Your task to perform on an android device: toggle airplane mode Image 0: 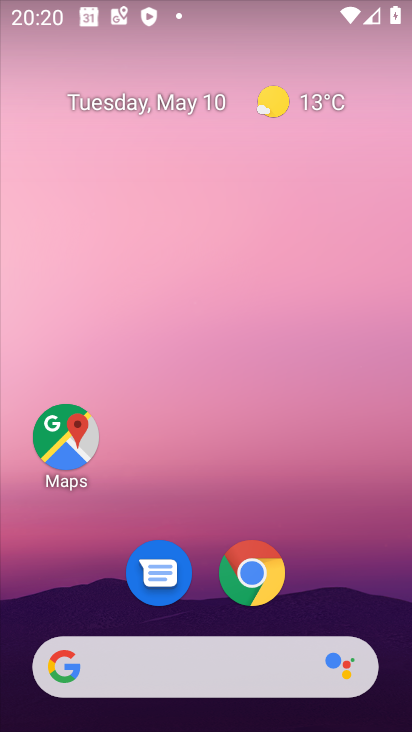
Step 0: drag from (334, 540) to (326, 22)
Your task to perform on an android device: toggle airplane mode Image 1: 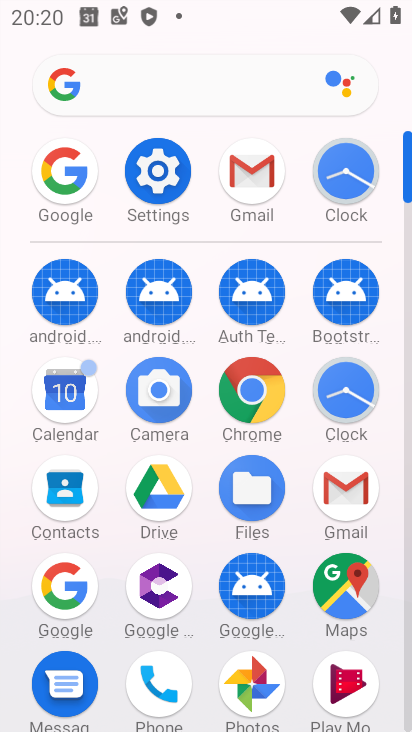
Step 1: click (153, 181)
Your task to perform on an android device: toggle airplane mode Image 2: 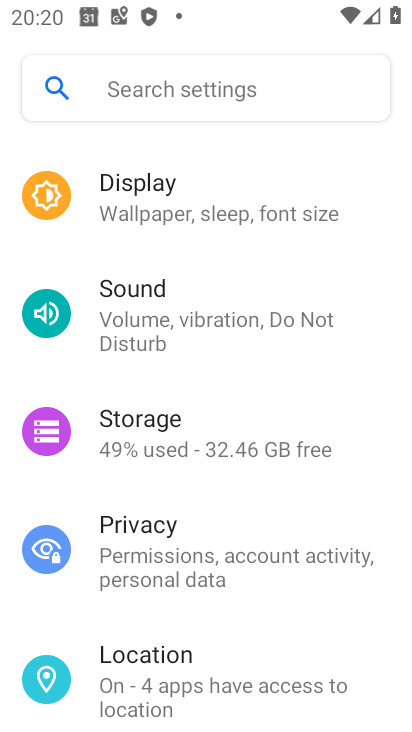
Step 2: drag from (294, 271) to (330, 643)
Your task to perform on an android device: toggle airplane mode Image 3: 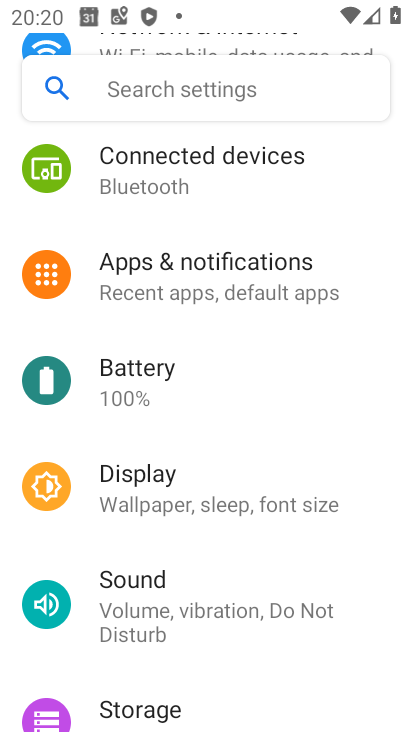
Step 3: drag from (327, 269) to (353, 611)
Your task to perform on an android device: toggle airplane mode Image 4: 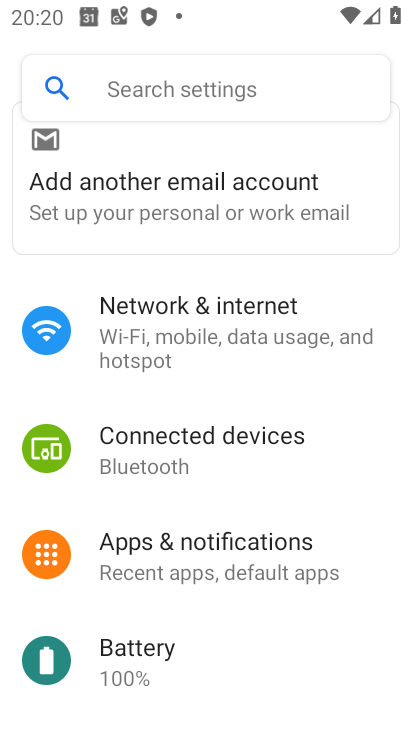
Step 4: click (191, 344)
Your task to perform on an android device: toggle airplane mode Image 5: 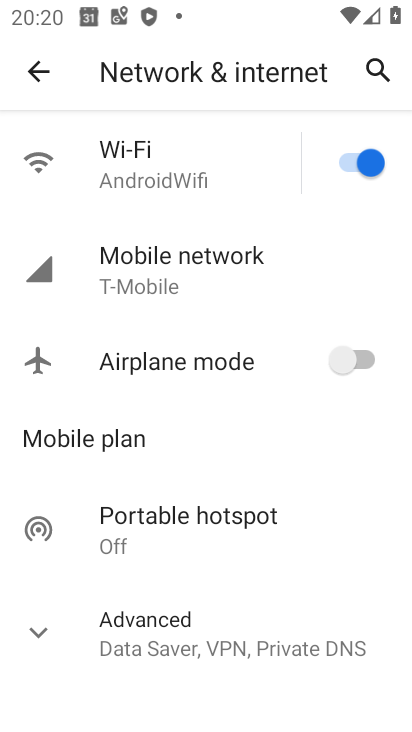
Step 5: click (336, 356)
Your task to perform on an android device: toggle airplane mode Image 6: 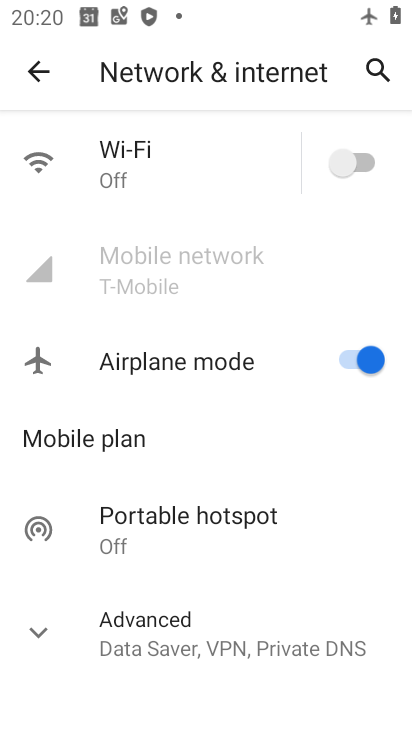
Step 6: task complete